Your task to perform on an android device: change the upload size in google photos Image 0: 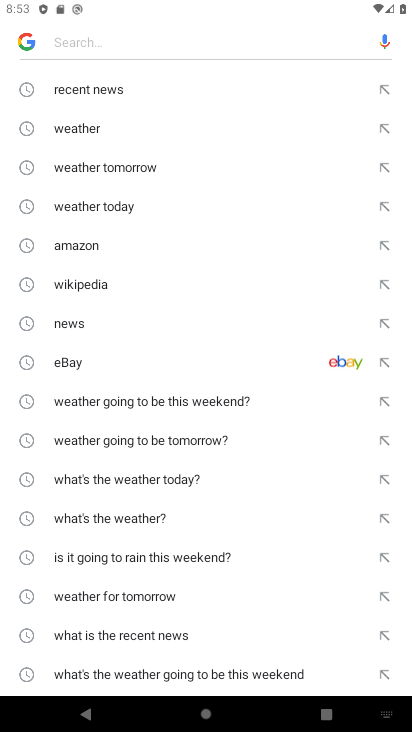
Step 0: press back button
Your task to perform on an android device: change the upload size in google photos Image 1: 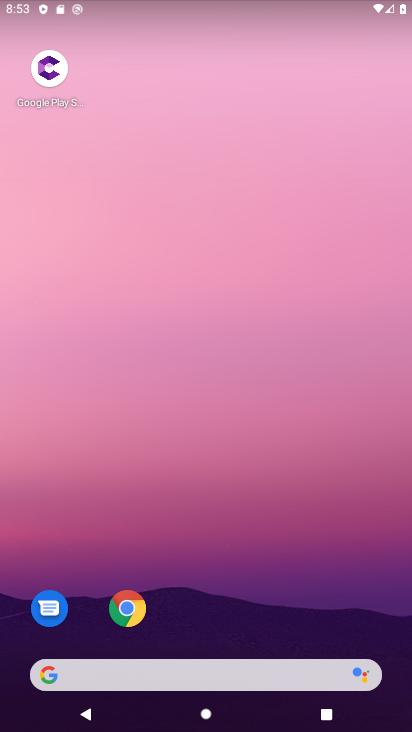
Step 1: drag from (241, 666) to (196, 19)
Your task to perform on an android device: change the upload size in google photos Image 2: 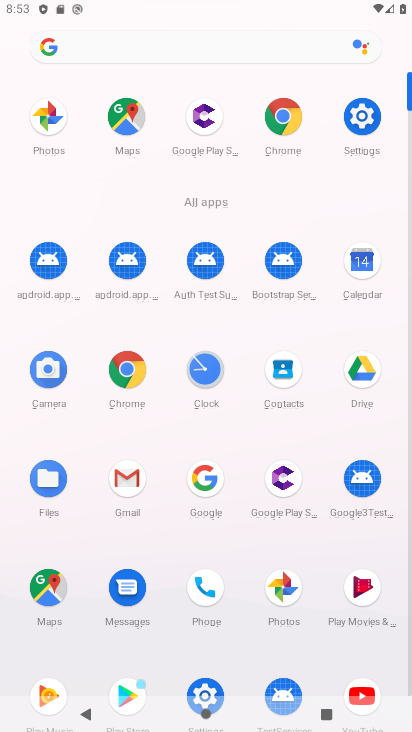
Step 2: click (276, 597)
Your task to perform on an android device: change the upload size in google photos Image 3: 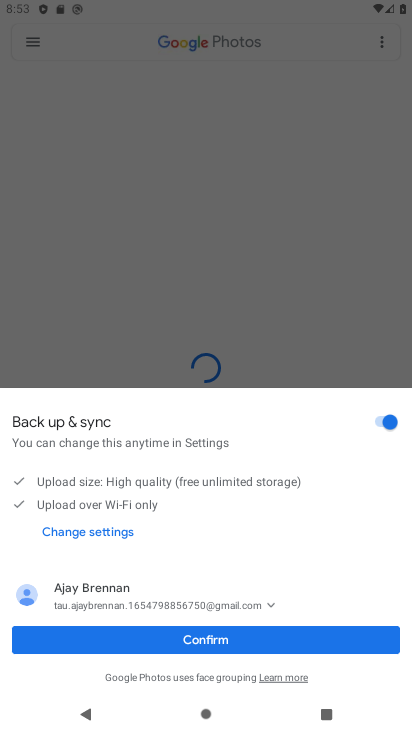
Step 3: click (266, 649)
Your task to perform on an android device: change the upload size in google photos Image 4: 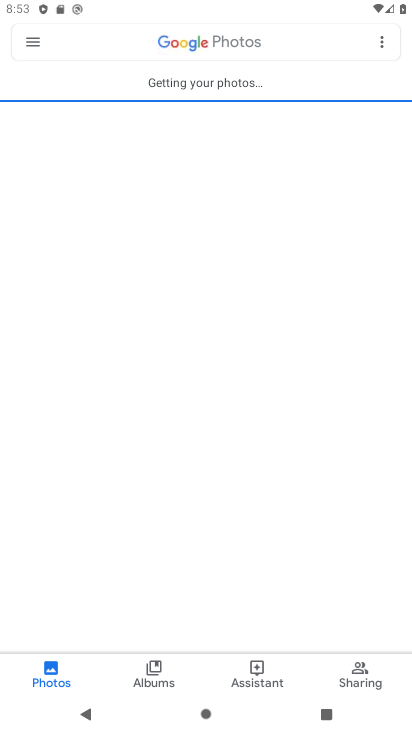
Step 4: click (28, 49)
Your task to perform on an android device: change the upload size in google photos Image 5: 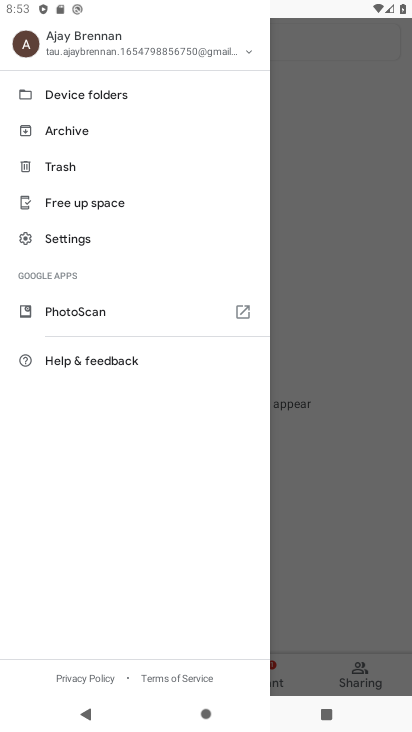
Step 5: click (78, 234)
Your task to perform on an android device: change the upload size in google photos Image 6: 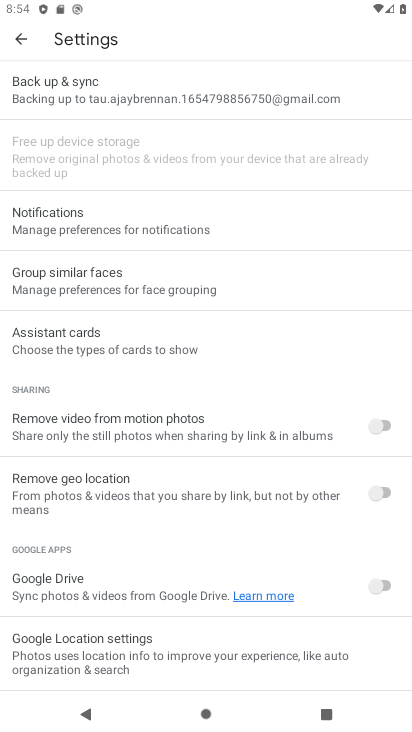
Step 6: click (88, 96)
Your task to perform on an android device: change the upload size in google photos Image 7: 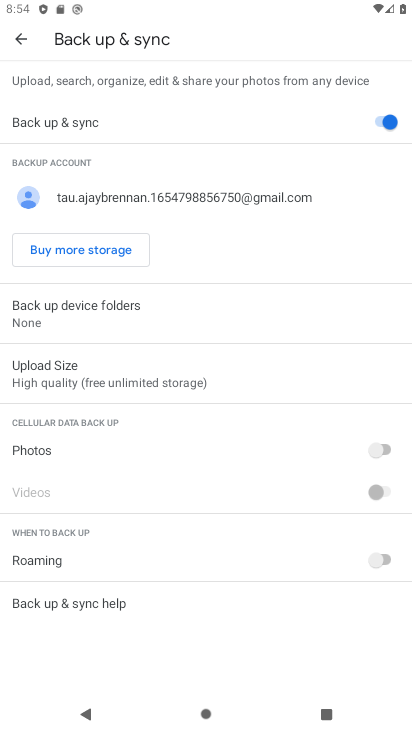
Step 7: click (122, 382)
Your task to perform on an android device: change the upload size in google photos Image 8: 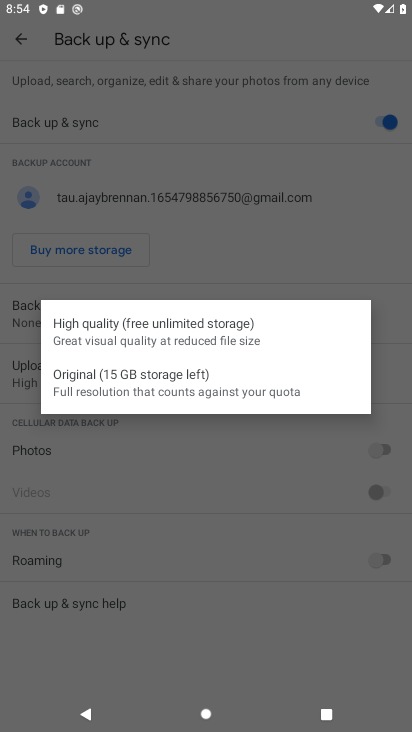
Step 8: click (127, 394)
Your task to perform on an android device: change the upload size in google photos Image 9: 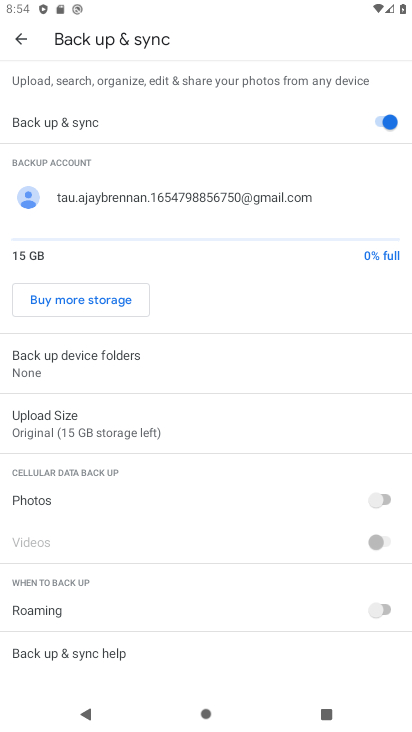
Step 9: task complete